Your task to perform on an android device: Open Google Maps Image 0: 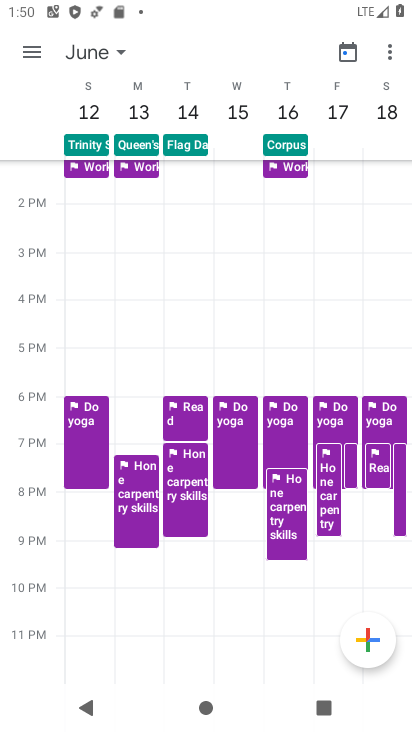
Step 0: press home button
Your task to perform on an android device: Open Google Maps Image 1: 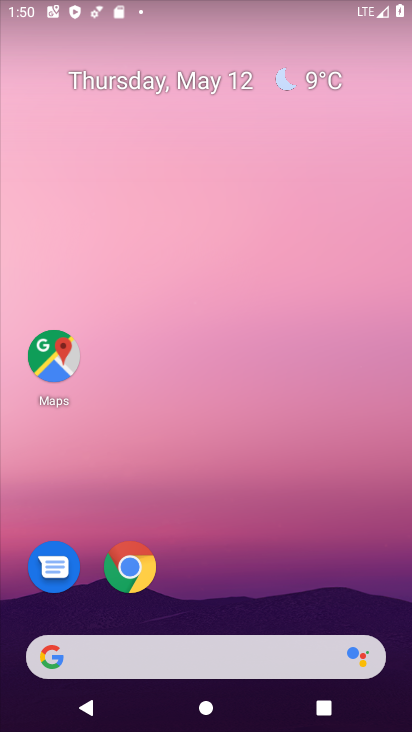
Step 1: click (45, 351)
Your task to perform on an android device: Open Google Maps Image 2: 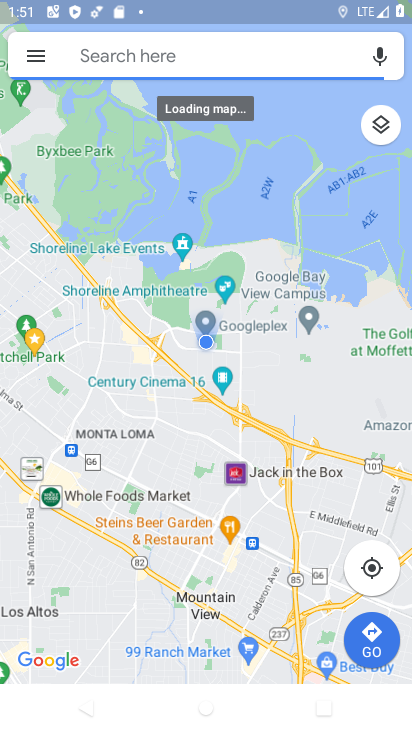
Step 2: task complete